Your task to perform on an android device: When is my next meeting? Image 0: 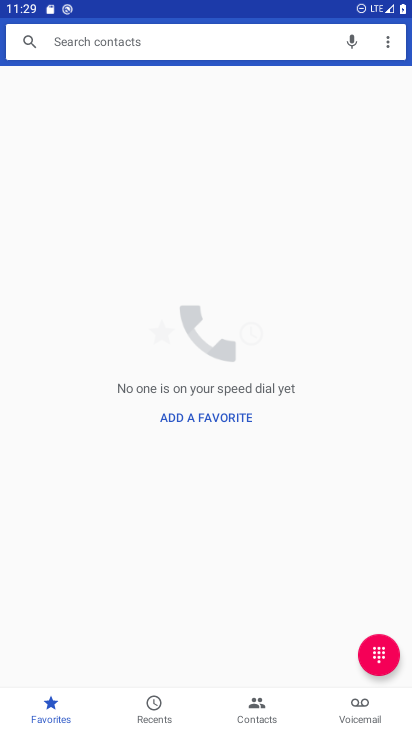
Step 0: press home button
Your task to perform on an android device: When is my next meeting? Image 1: 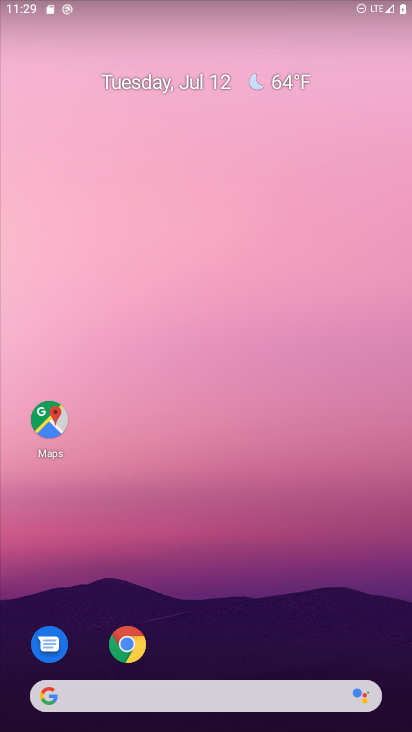
Step 1: drag from (237, 673) to (228, 255)
Your task to perform on an android device: When is my next meeting? Image 2: 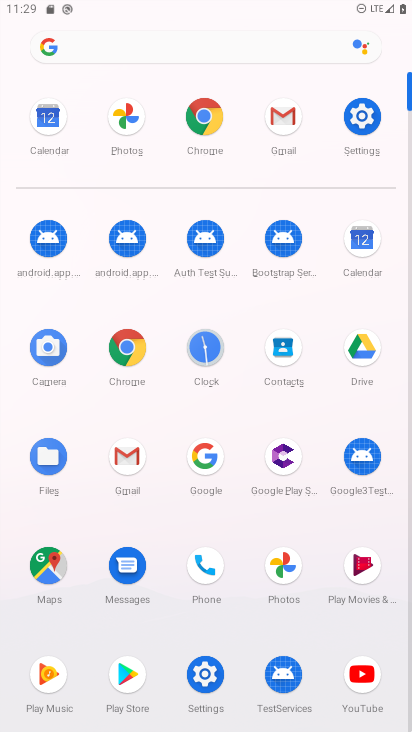
Step 2: click (61, 143)
Your task to perform on an android device: When is my next meeting? Image 3: 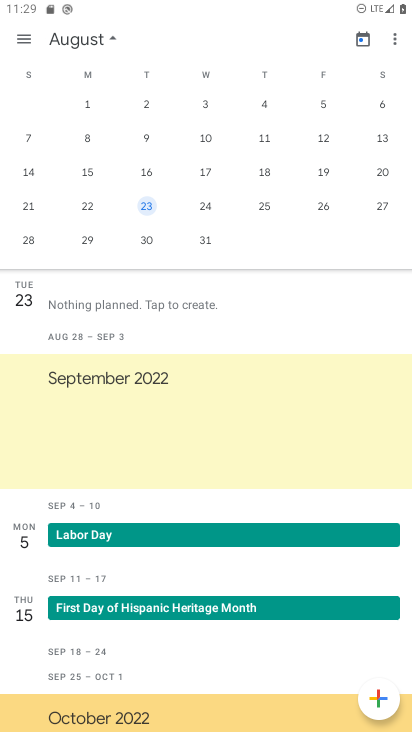
Step 3: task complete